Your task to perform on an android device: Open internet settings Image 0: 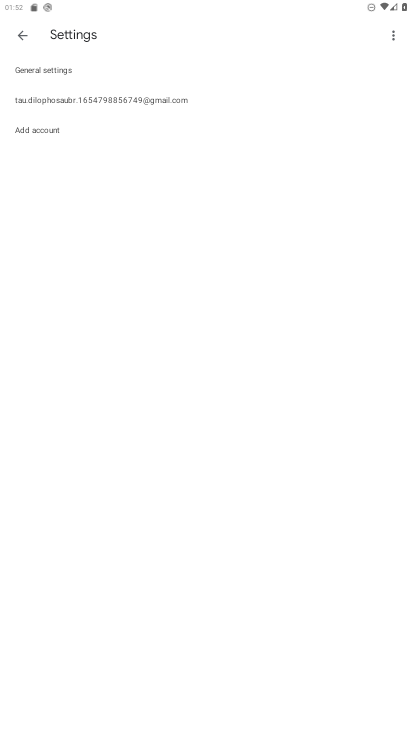
Step 0: press home button
Your task to perform on an android device: Open internet settings Image 1: 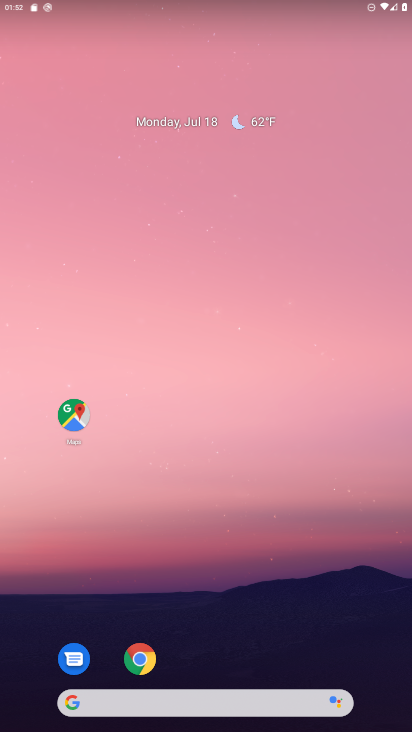
Step 1: drag from (224, 208) to (233, 88)
Your task to perform on an android device: Open internet settings Image 2: 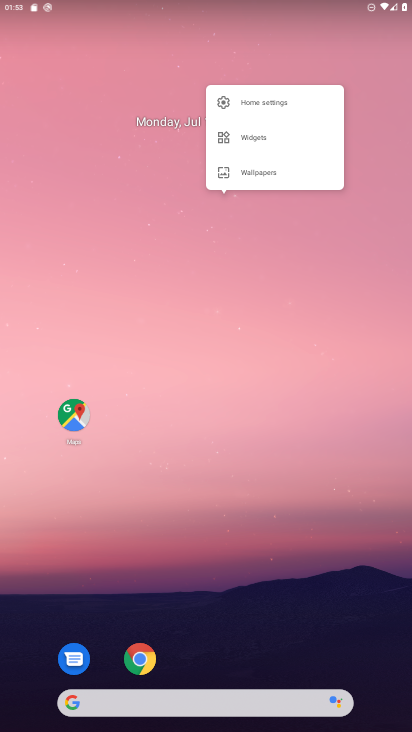
Step 2: click (229, 373)
Your task to perform on an android device: Open internet settings Image 3: 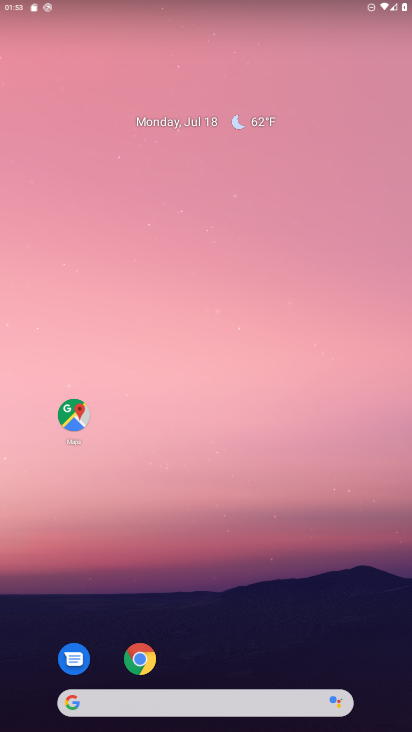
Step 3: click (235, 354)
Your task to perform on an android device: Open internet settings Image 4: 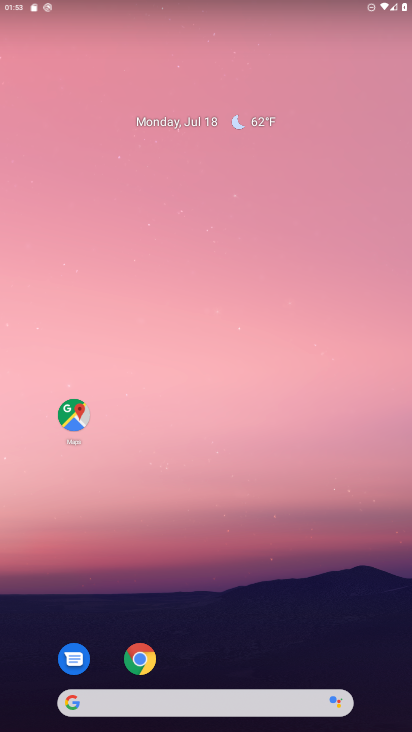
Step 4: click (227, 351)
Your task to perform on an android device: Open internet settings Image 5: 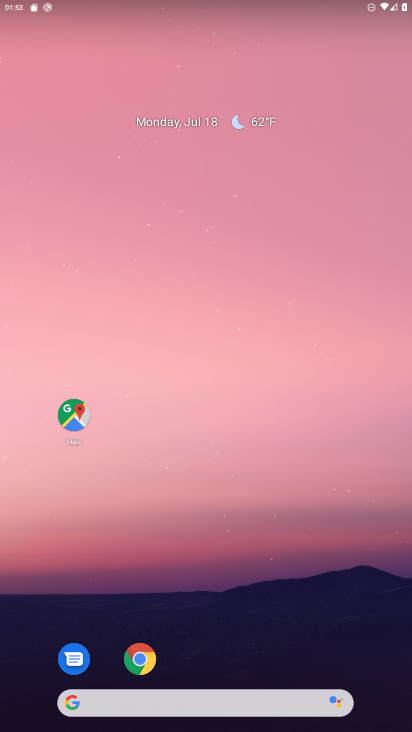
Step 5: click (228, 350)
Your task to perform on an android device: Open internet settings Image 6: 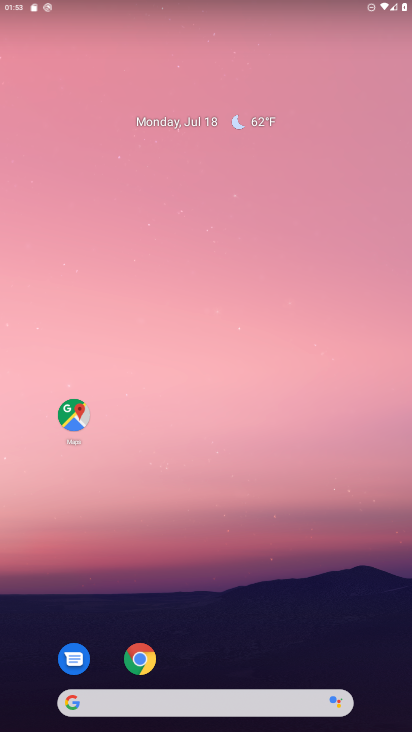
Step 6: drag from (272, 604) to (244, 82)
Your task to perform on an android device: Open internet settings Image 7: 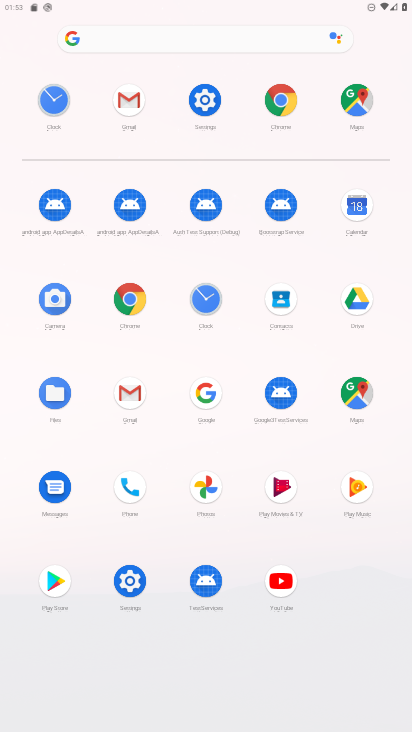
Step 7: click (202, 94)
Your task to perform on an android device: Open internet settings Image 8: 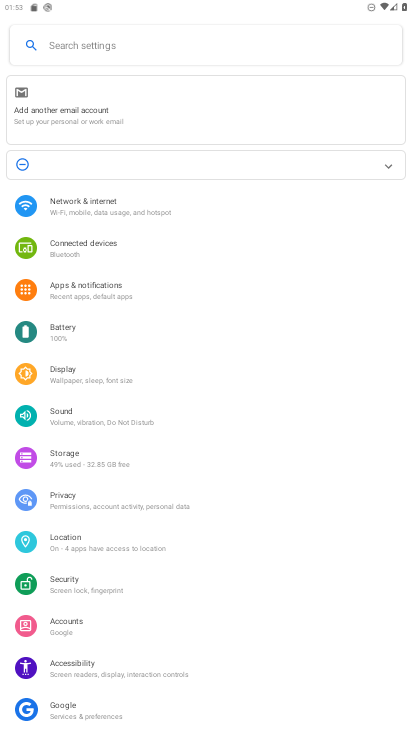
Step 8: click (97, 213)
Your task to perform on an android device: Open internet settings Image 9: 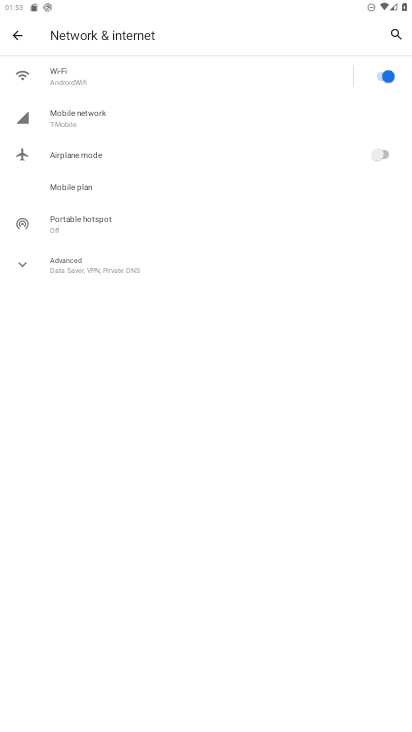
Step 9: click (86, 258)
Your task to perform on an android device: Open internet settings Image 10: 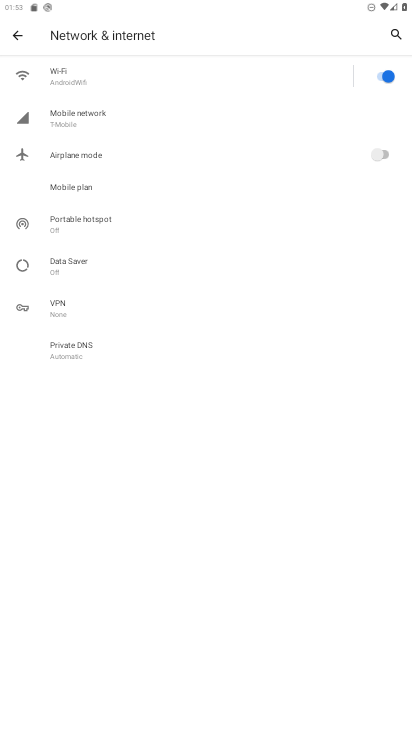
Step 10: task complete